Your task to perform on an android device: Go to Reddit.com Image 0: 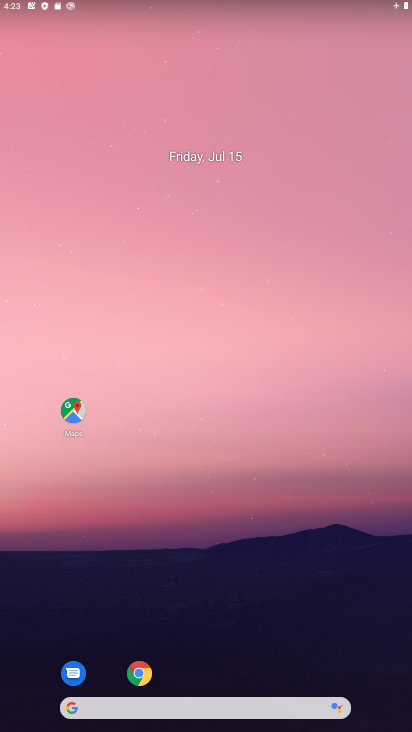
Step 0: click (144, 673)
Your task to perform on an android device: Go to Reddit.com Image 1: 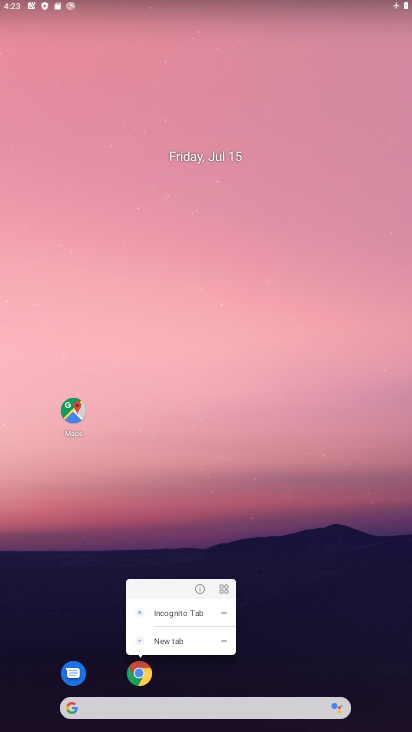
Step 1: click (142, 678)
Your task to perform on an android device: Go to Reddit.com Image 2: 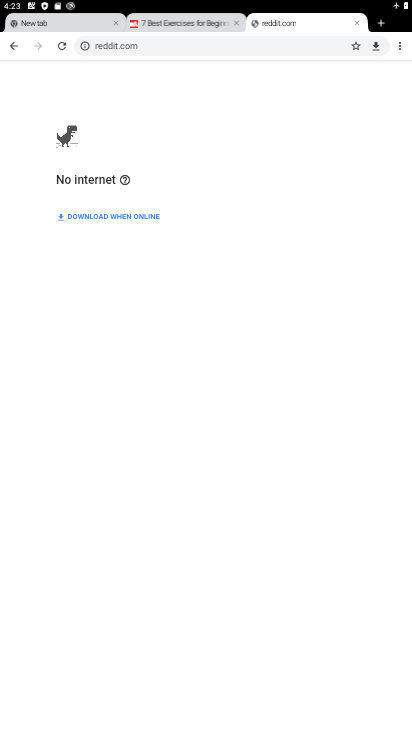
Step 2: click (287, 24)
Your task to perform on an android device: Go to Reddit.com Image 3: 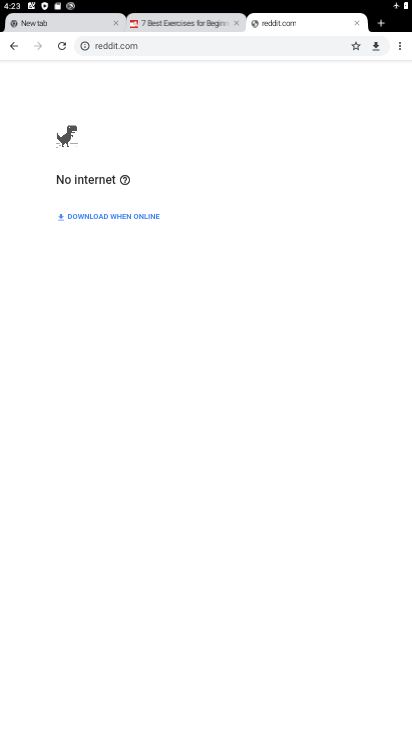
Step 3: task complete